Your task to perform on an android device: open chrome and create a bookmark for the current page Image 0: 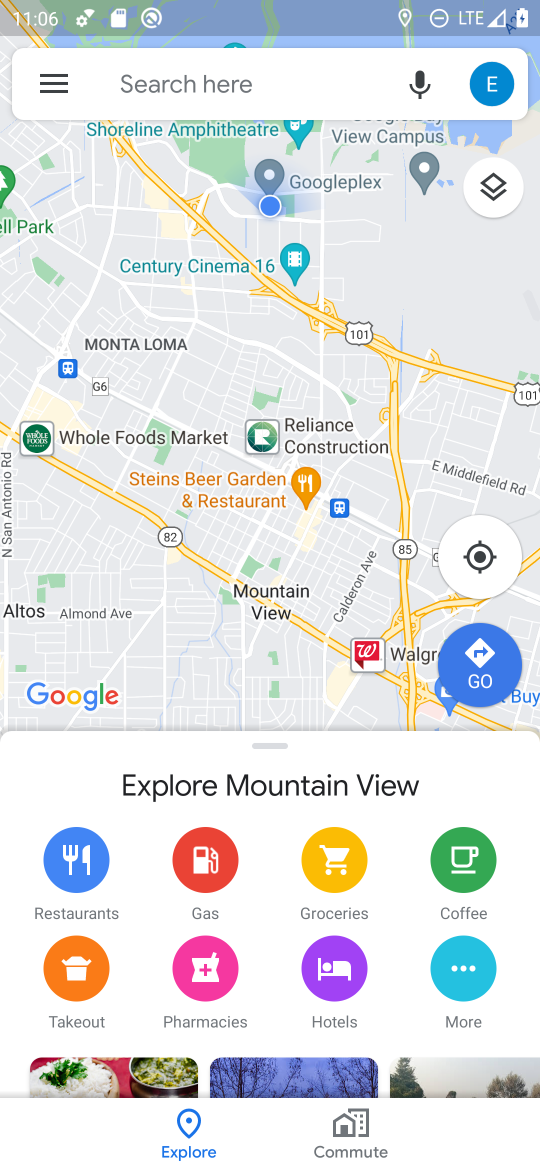
Step 0: press home button
Your task to perform on an android device: open chrome and create a bookmark for the current page Image 1: 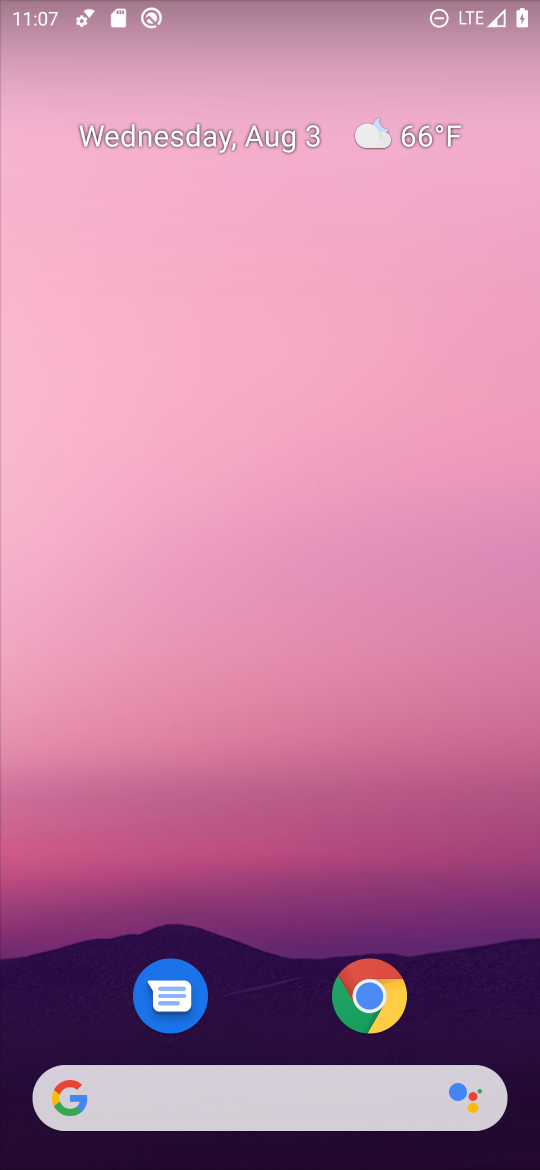
Step 1: click (371, 1002)
Your task to perform on an android device: open chrome and create a bookmark for the current page Image 2: 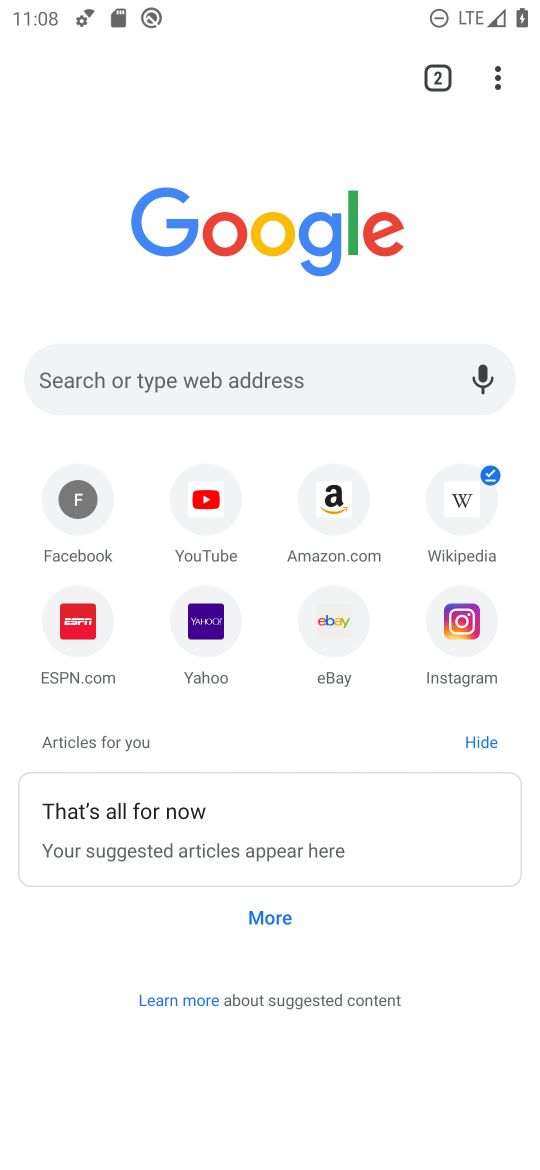
Step 2: click (494, 78)
Your task to perform on an android device: open chrome and create a bookmark for the current page Image 3: 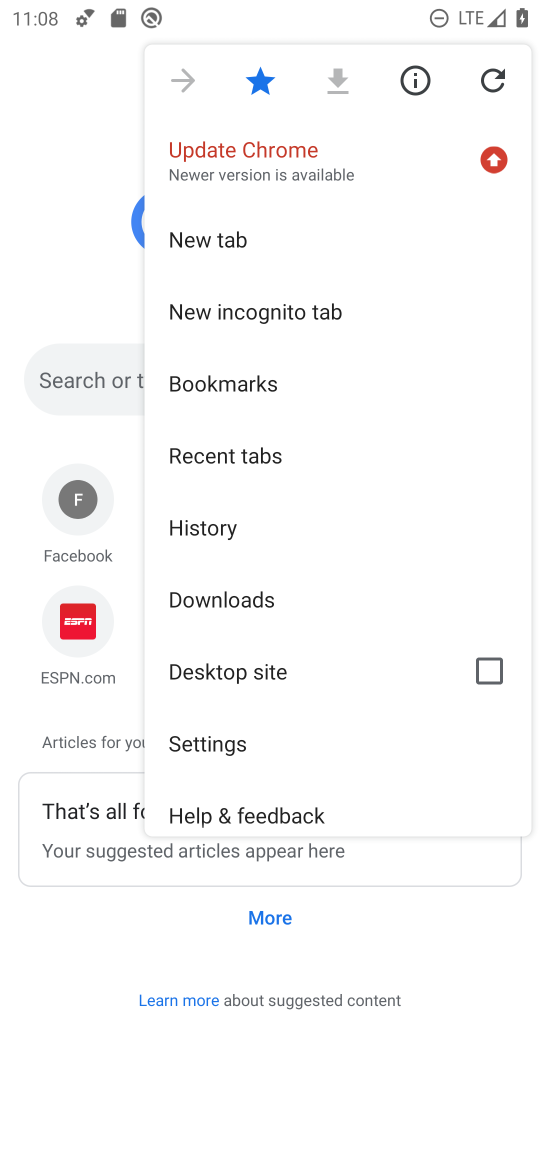
Step 3: task complete